Your task to perform on an android device: turn on the 12-hour format for clock Image 0: 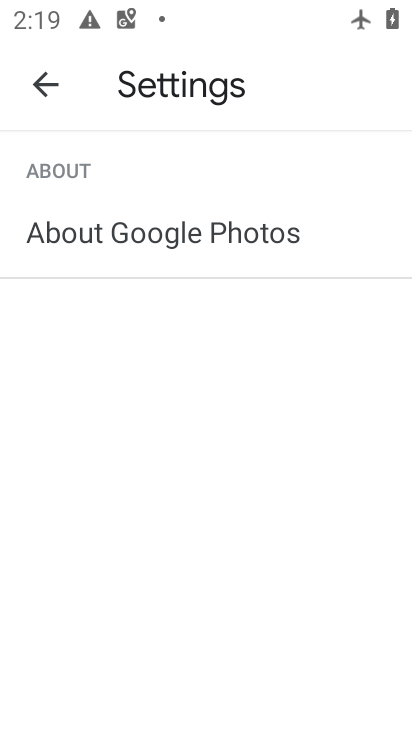
Step 0: press home button
Your task to perform on an android device: turn on the 12-hour format for clock Image 1: 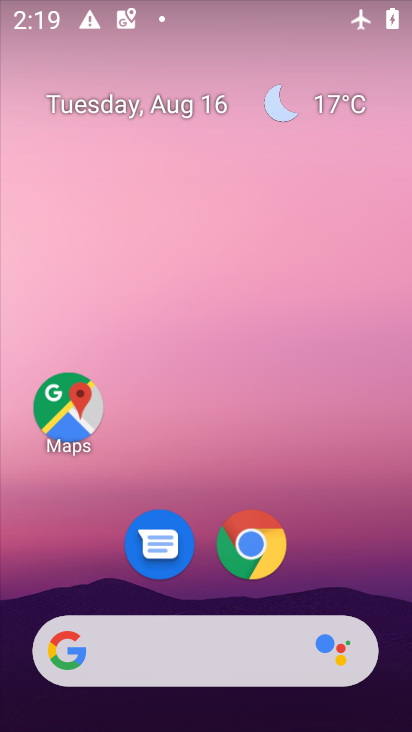
Step 1: drag from (159, 670) to (208, 95)
Your task to perform on an android device: turn on the 12-hour format for clock Image 2: 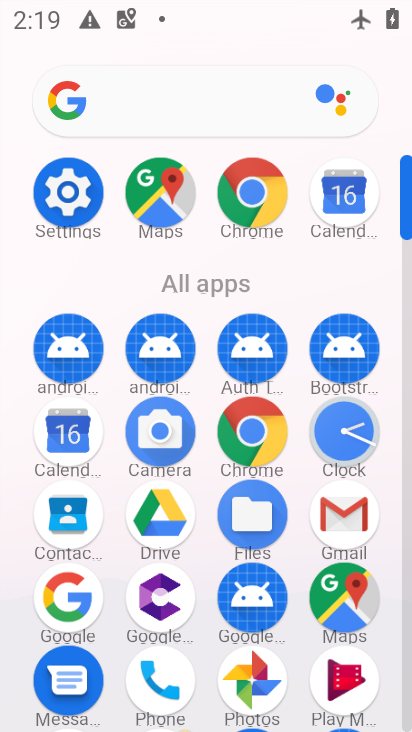
Step 2: click (343, 431)
Your task to perform on an android device: turn on the 12-hour format for clock Image 3: 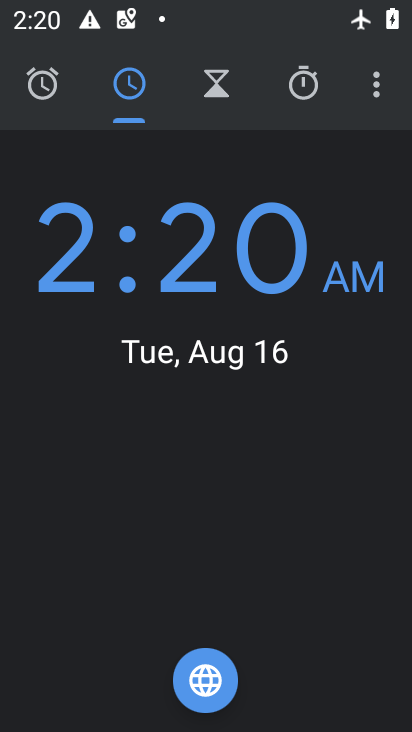
Step 3: click (378, 90)
Your task to perform on an android device: turn on the 12-hour format for clock Image 4: 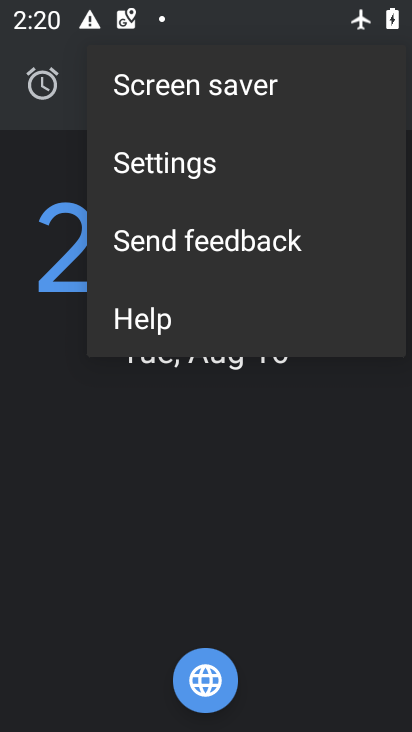
Step 4: click (199, 169)
Your task to perform on an android device: turn on the 12-hour format for clock Image 5: 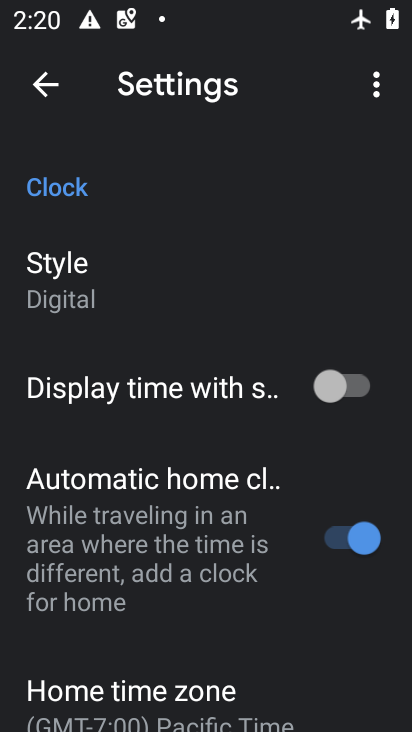
Step 5: drag from (147, 427) to (241, 290)
Your task to perform on an android device: turn on the 12-hour format for clock Image 6: 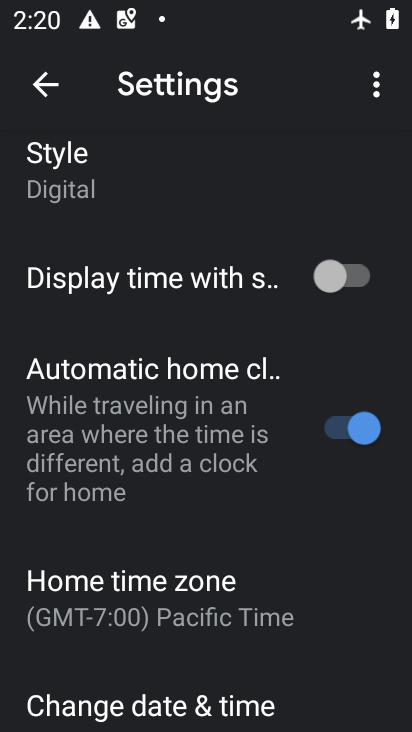
Step 6: drag from (167, 503) to (247, 381)
Your task to perform on an android device: turn on the 12-hour format for clock Image 7: 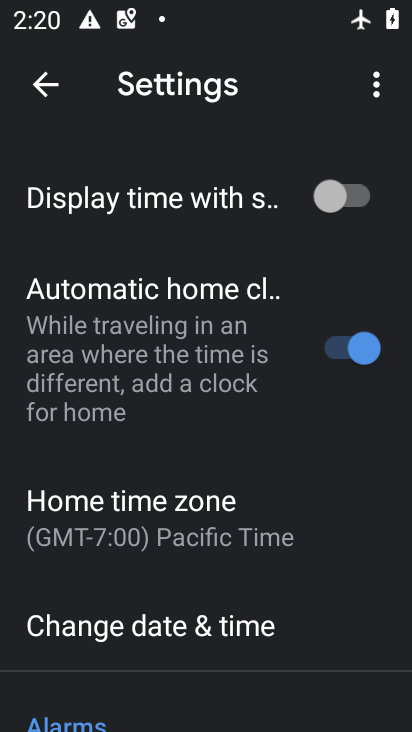
Step 7: click (165, 626)
Your task to perform on an android device: turn on the 12-hour format for clock Image 8: 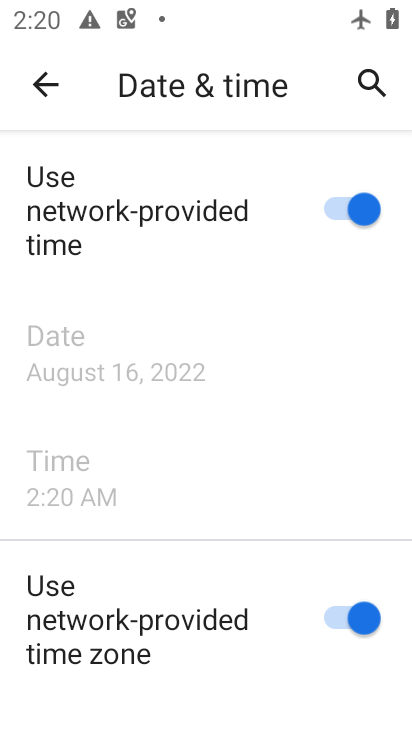
Step 8: task complete